Your task to perform on an android device: choose inbox layout in the gmail app Image 0: 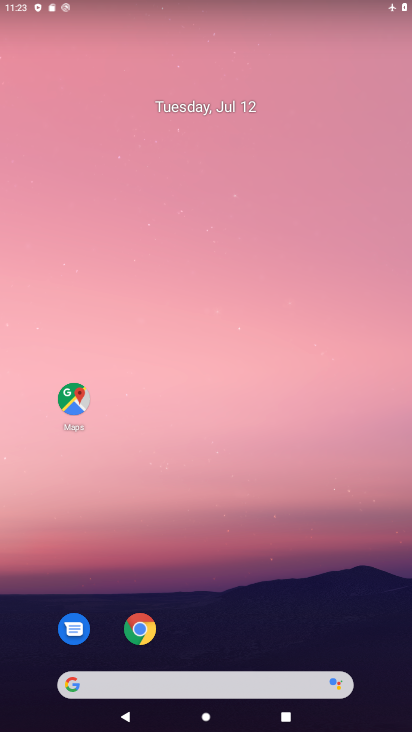
Step 0: drag from (202, 648) to (189, 186)
Your task to perform on an android device: choose inbox layout in the gmail app Image 1: 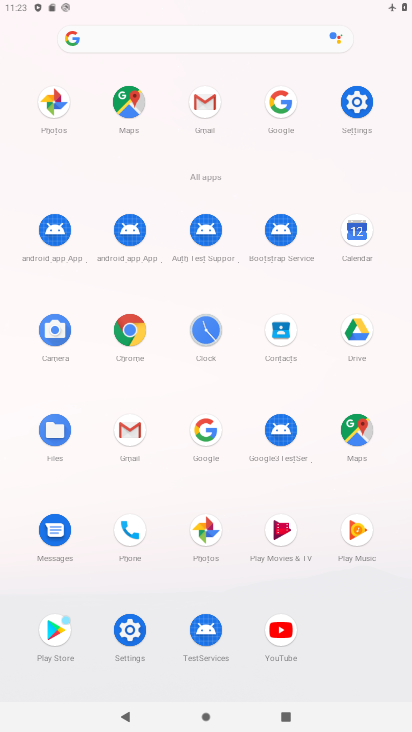
Step 1: click (203, 106)
Your task to perform on an android device: choose inbox layout in the gmail app Image 2: 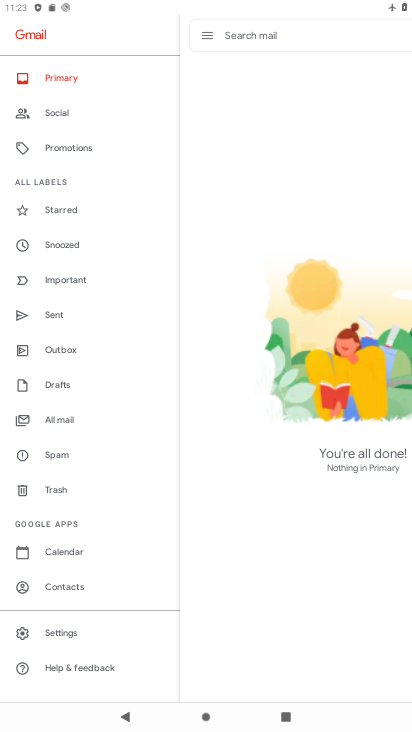
Step 2: click (43, 629)
Your task to perform on an android device: choose inbox layout in the gmail app Image 3: 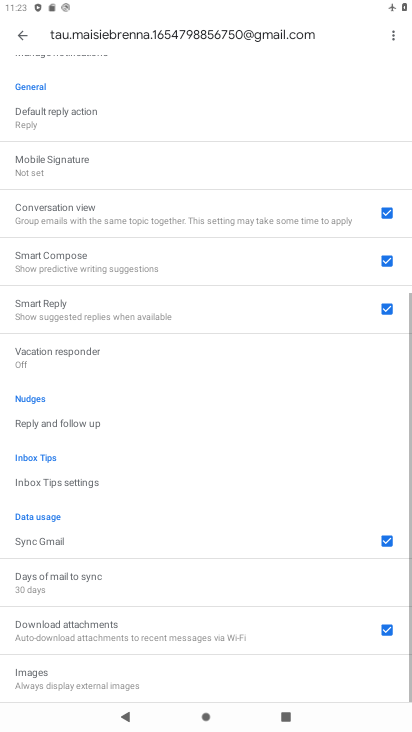
Step 3: click (43, 629)
Your task to perform on an android device: choose inbox layout in the gmail app Image 4: 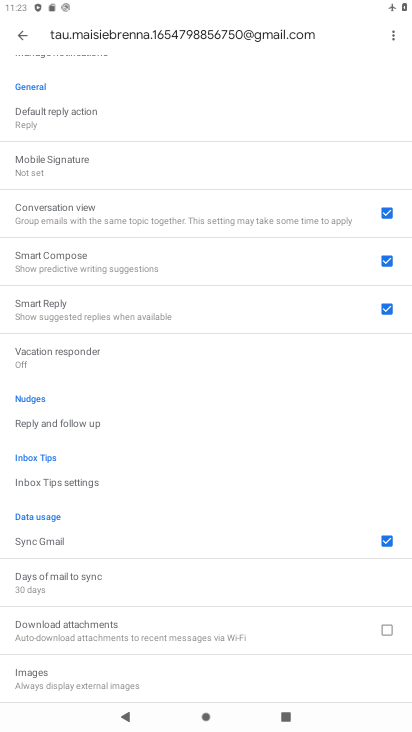
Step 4: drag from (62, 145) to (38, 582)
Your task to perform on an android device: choose inbox layout in the gmail app Image 5: 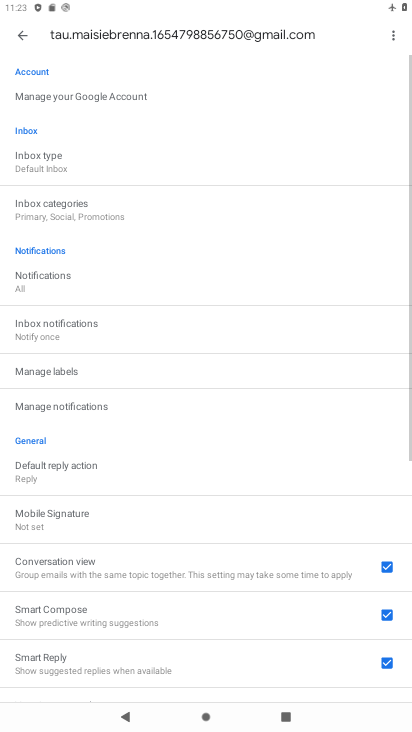
Step 5: click (45, 170)
Your task to perform on an android device: choose inbox layout in the gmail app Image 6: 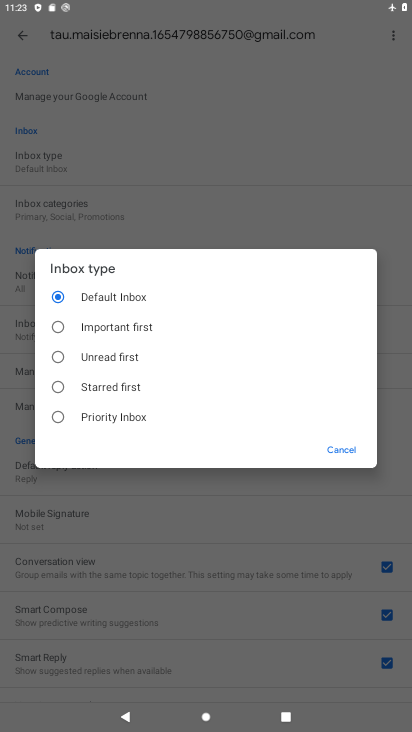
Step 6: click (105, 415)
Your task to perform on an android device: choose inbox layout in the gmail app Image 7: 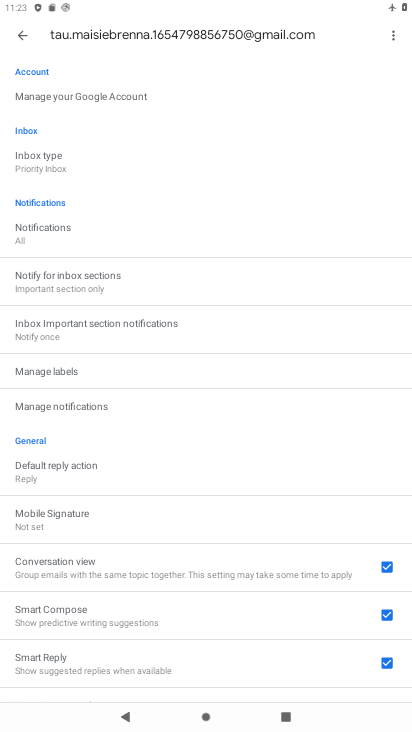
Step 7: click (14, 32)
Your task to perform on an android device: choose inbox layout in the gmail app Image 8: 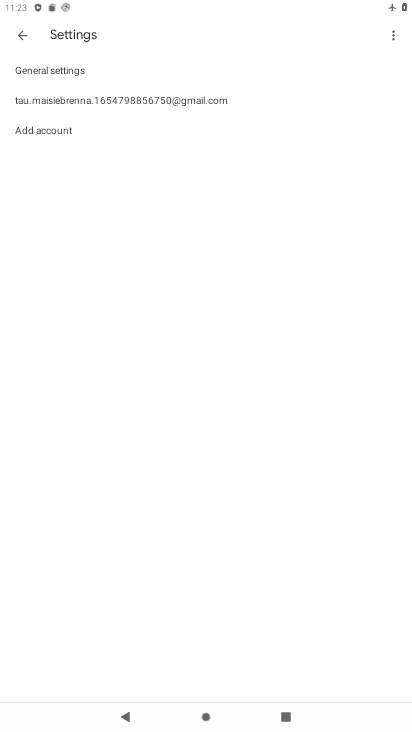
Step 8: click (14, 32)
Your task to perform on an android device: choose inbox layout in the gmail app Image 9: 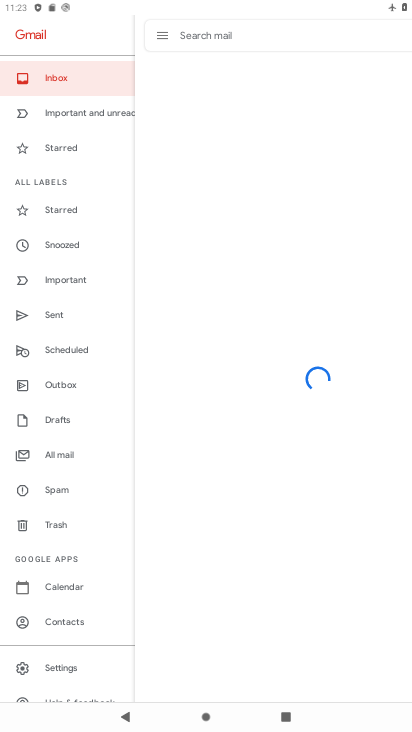
Step 9: click (60, 65)
Your task to perform on an android device: choose inbox layout in the gmail app Image 10: 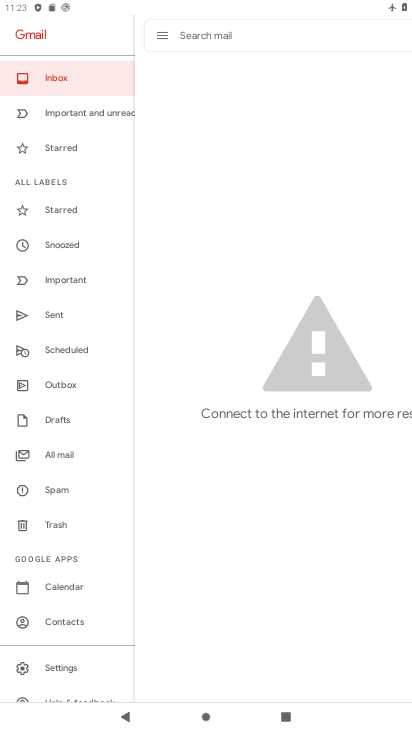
Step 10: task complete